Your task to perform on an android device: turn off data saver in the chrome app Image 0: 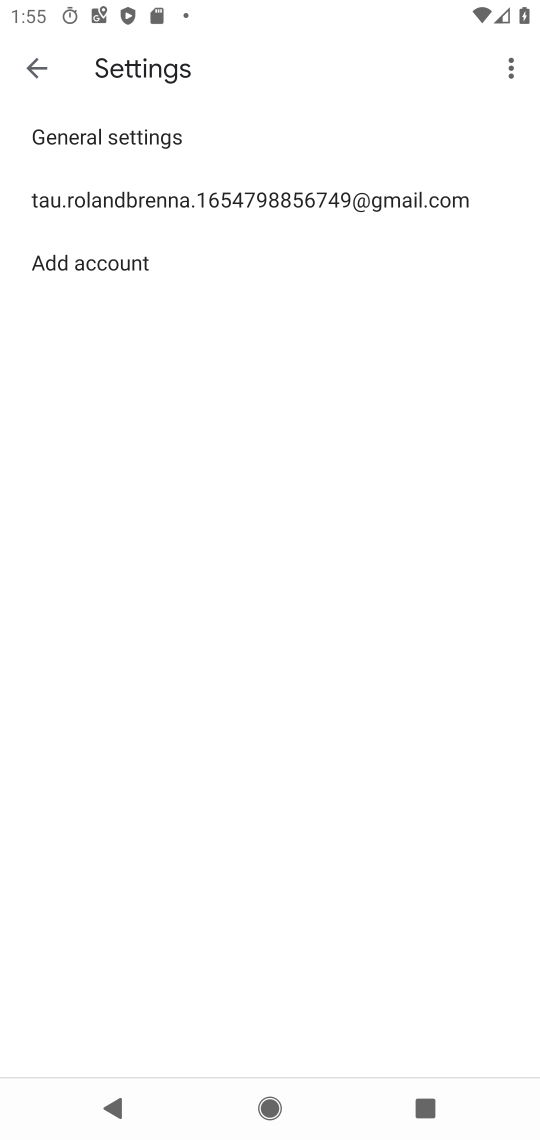
Step 0: press home button
Your task to perform on an android device: turn off data saver in the chrome app Image 1: 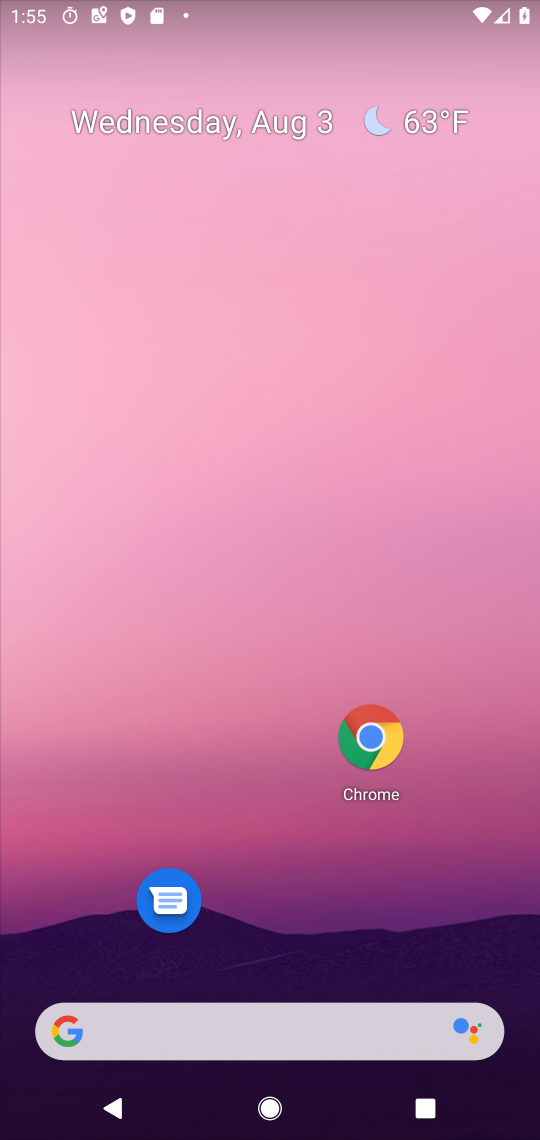
Step 1: drag from (256, 906) to (289, 123)
Your task to perform on an android device: turn off data saver in the chrome app Image 2: 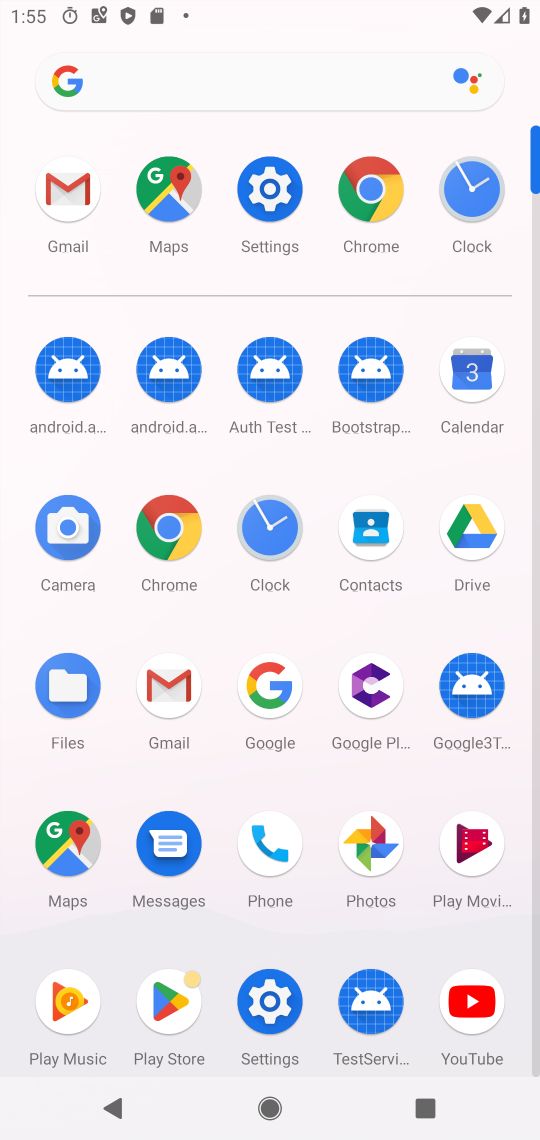
Step 2: click (176, 527)
Your task to perform on an android device: turn off data saver in the chrome app Image 3: 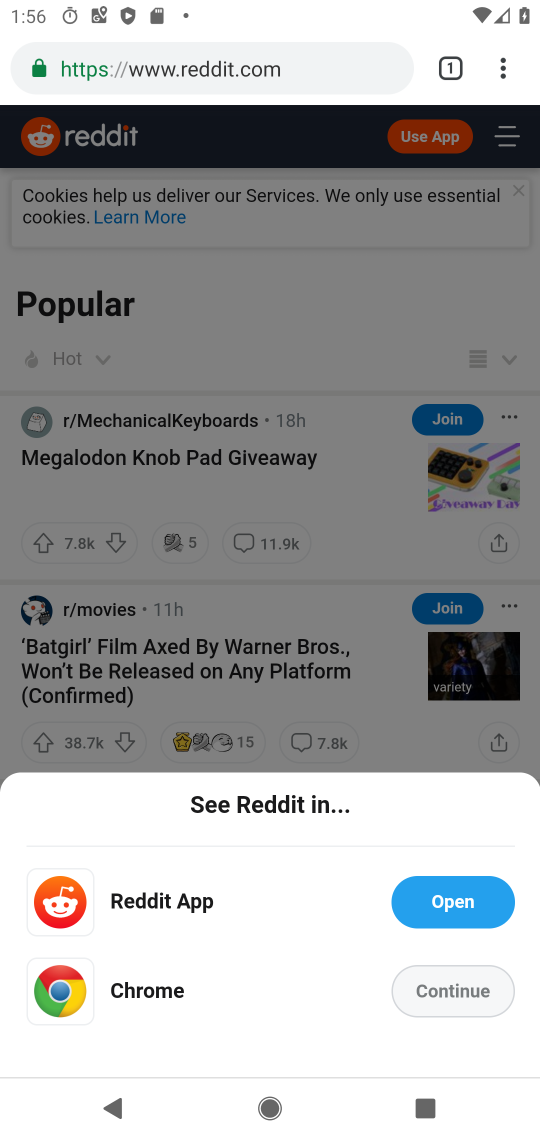
Step 3: drag from (506, 64) to (299, 907)
Your task to perform on an android device: turn off data saver in the chrome app Image 4: 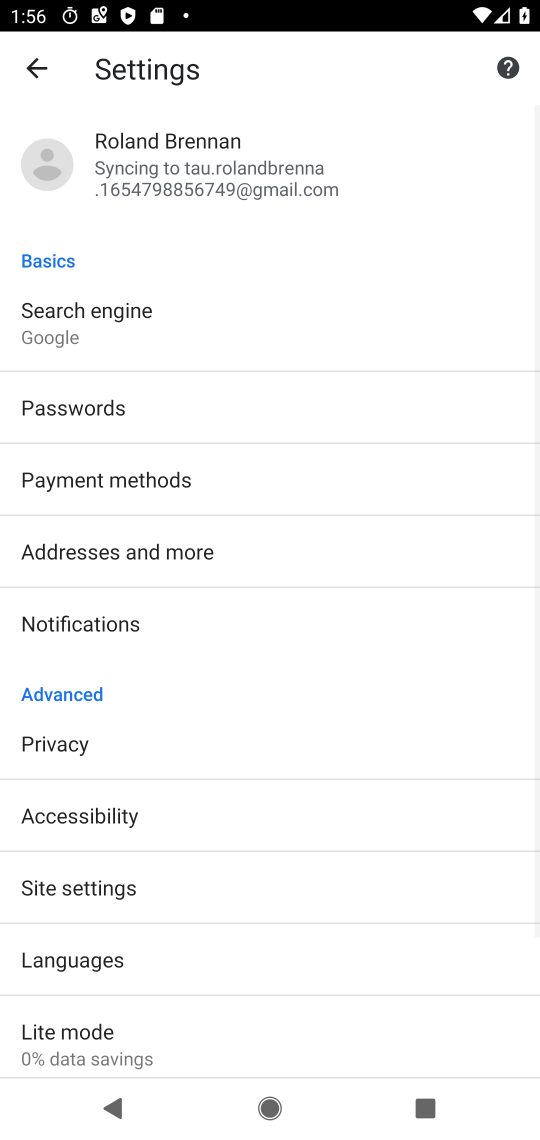
Step 4: drag from (193, 1023) to (311, 277)
Your task to perform on an android device: turn off data saver in the chrome app Image 5: 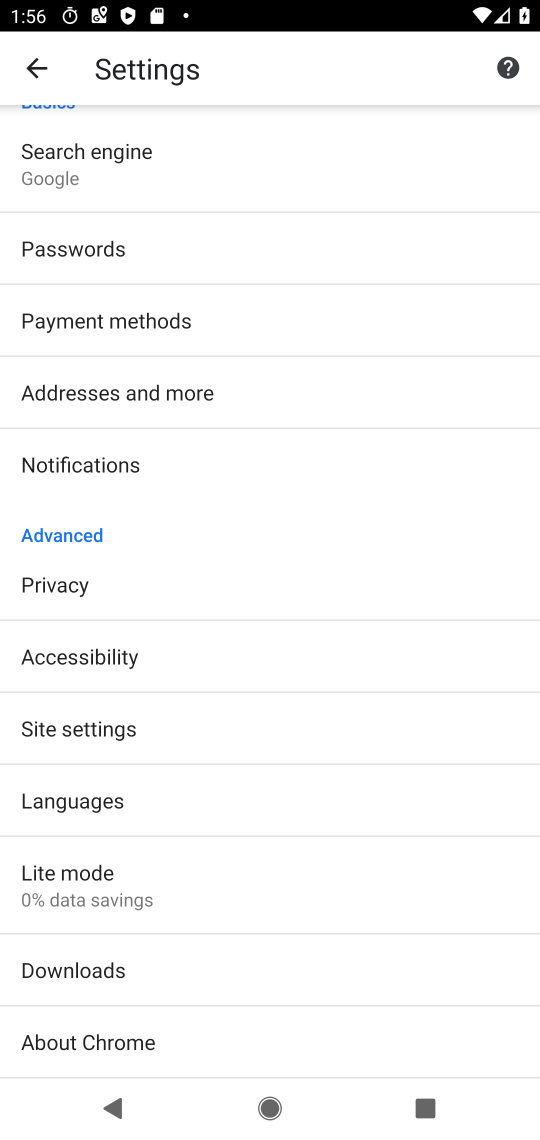
Step 5: click (133, 883)
Your task to perform on an android device: turn off data saver in the chrome app Image 6: 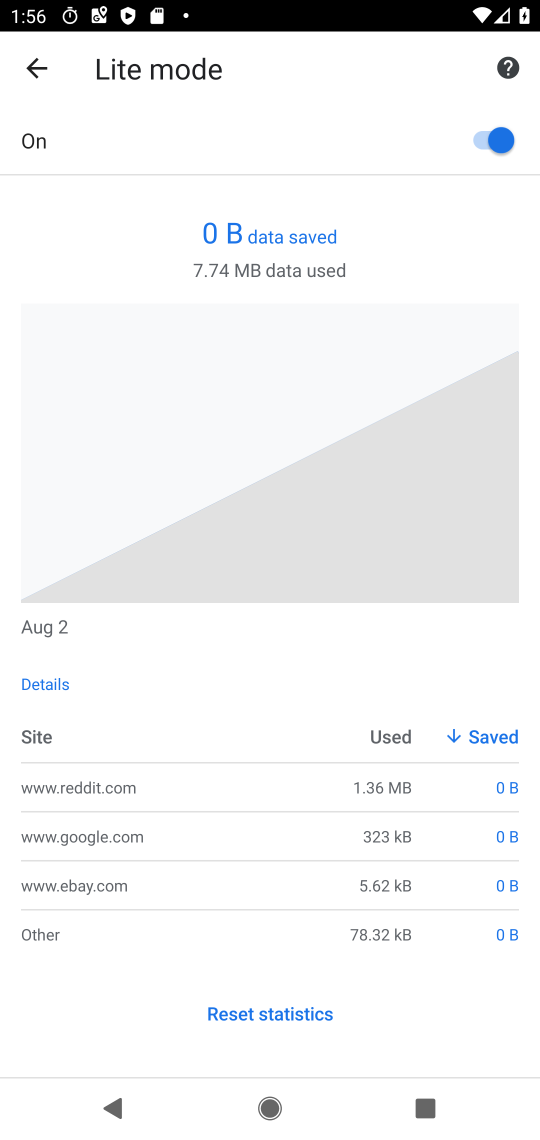
Step 6: click (481, 140)
Your task to perform on an android device: turn off data saver in the chrome app Image 7: 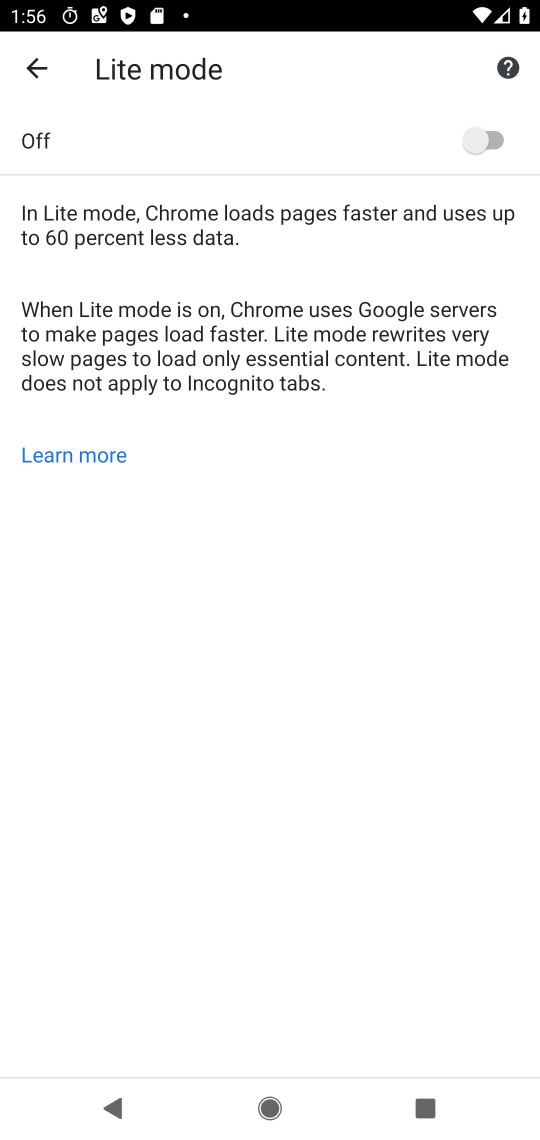
Step 7: task complete